Your task to perform on an android device: Go to ESPN.com Image 0: 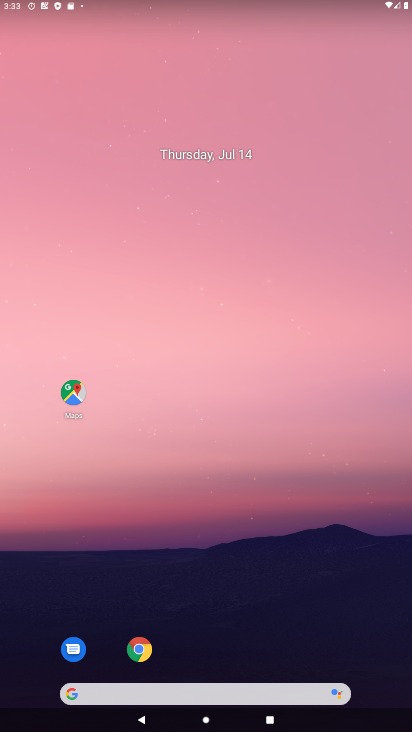
Step 0: click (143, 648)
Your task to perform on an android device: Go to ESPN.com Image 1: 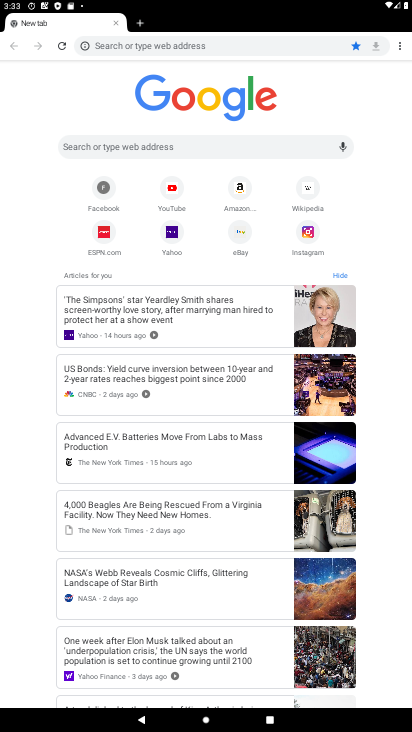
Step 1: click (101, 245)
Your task to perform on an android device: Go to ESPN.com Image 2: 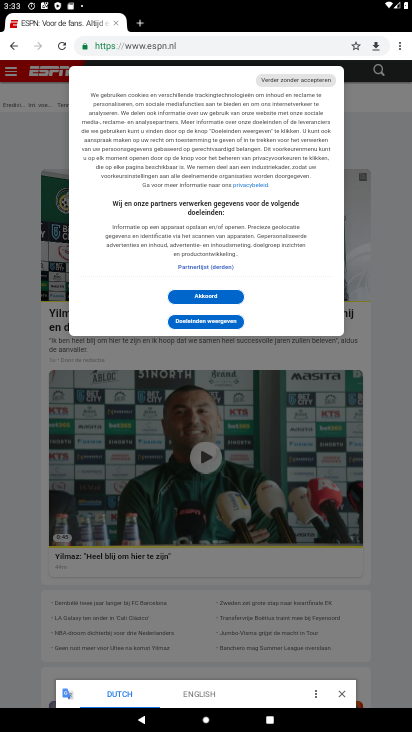
Step 2: task complete